Your task to perform on an android device: empty trash in google photos Image 0: 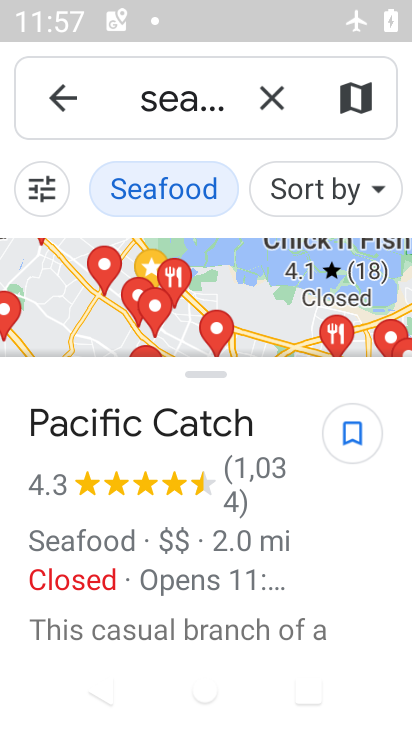
Step 0: press home button
Your task to perform on an android device: empty trash in google photos Image 1: 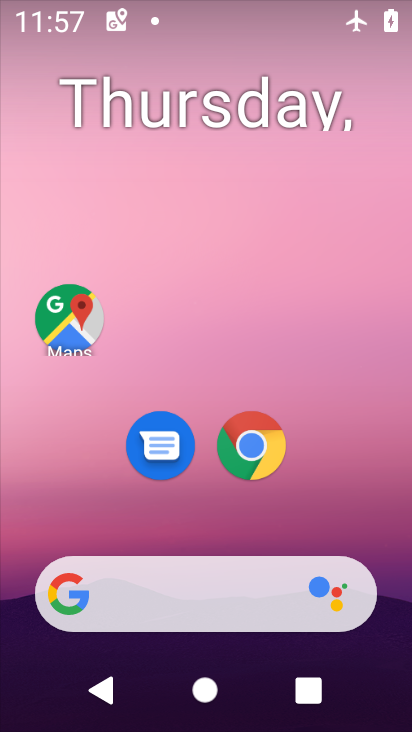
Step 1: drag from (337, 537) to (312, 71)
Your task to perform on an android device: empty trash in google photos Image 2: 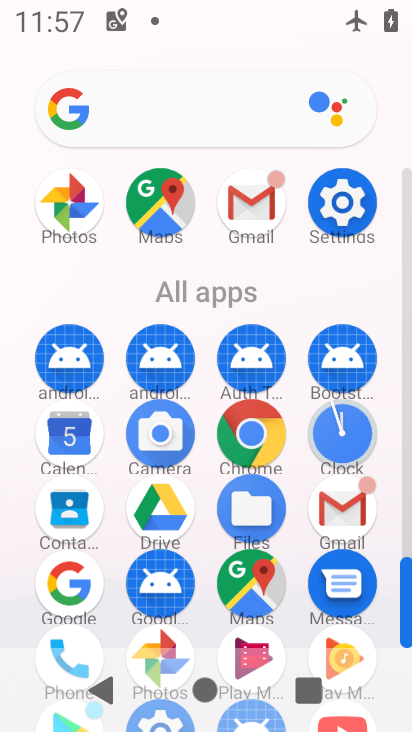
Step 2: drag from (194, 298) to (197, 147)
Your task to perform on an android device: empty trash in google photos Image 3: 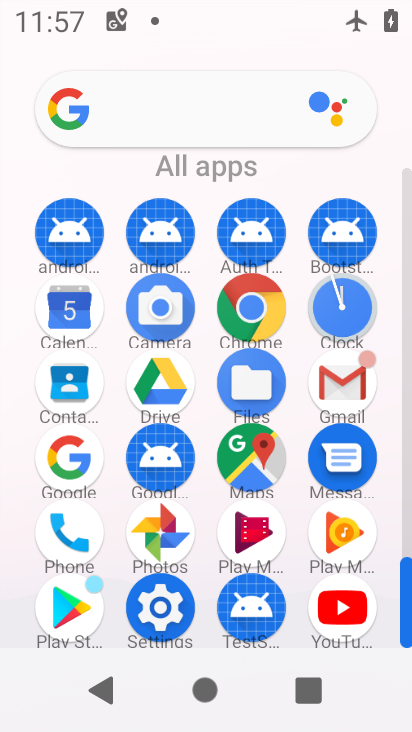
Step 3: click (168, 527)
Your task to perform on an android device: empty trash in google photos Image 4: 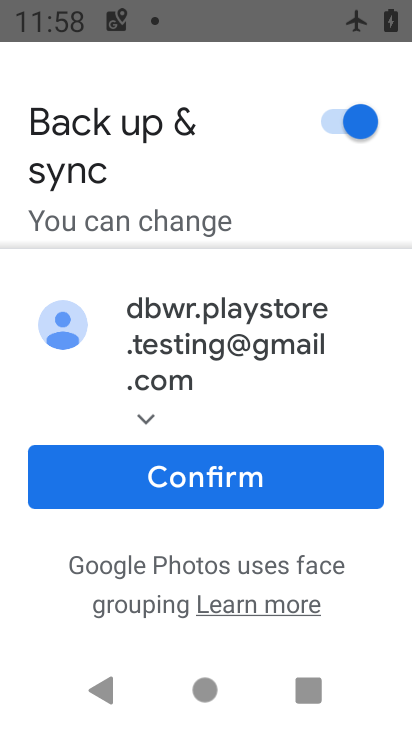
Step 4: click (235, 448)
Your task to perform on an android device: empty trash in google photos Image 5: 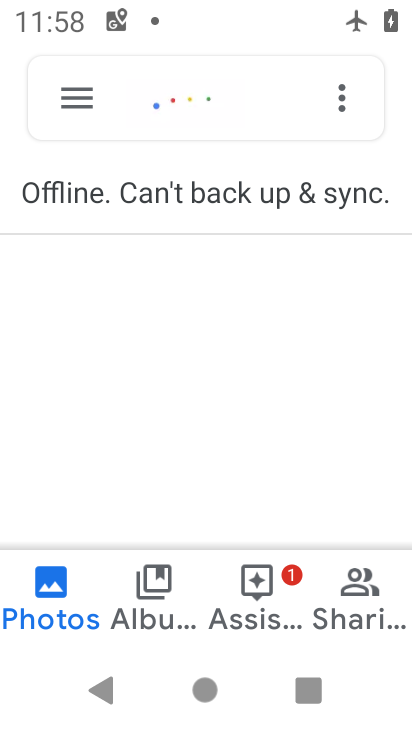
Step 5: click (95, 108)
Your task to perform on an android device: empty trash in google photos Image 6: 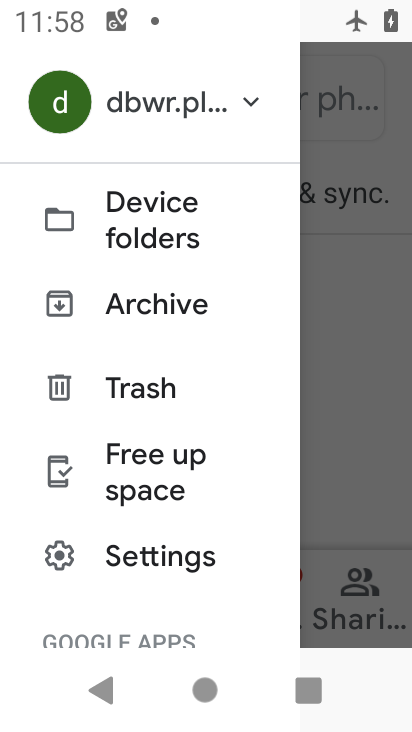
Step 6: click (146, 384)
Your task to perform on an android device: empty trash in google photos Image 7: 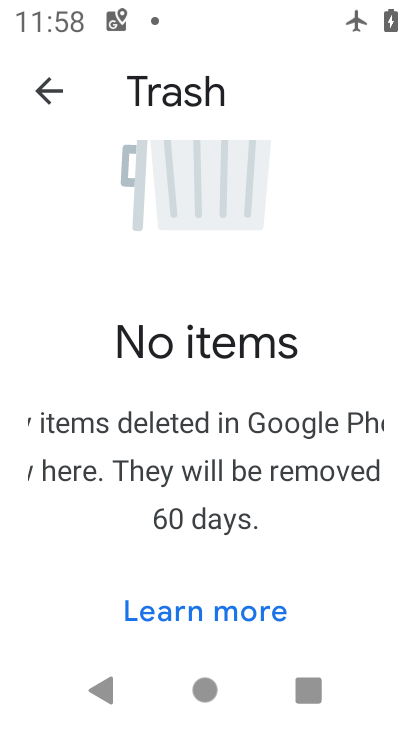
Step 7: task complete